Your task to perform on an android device: Go to settings Image 0: 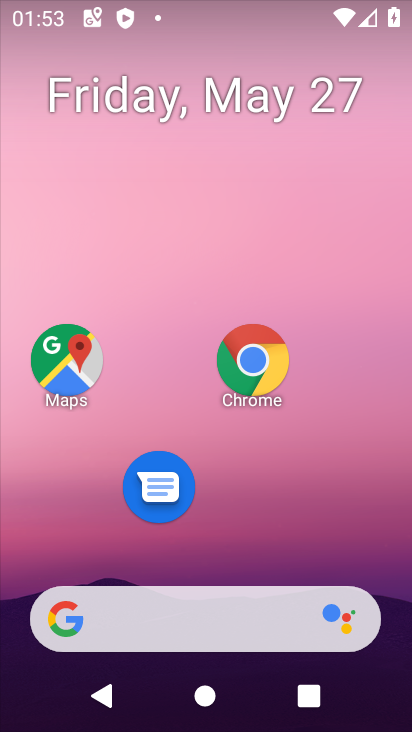
Step 0: drag from (254, 509) to (268, 84)
Your task to perform on an android device: Go to settings Image 1: 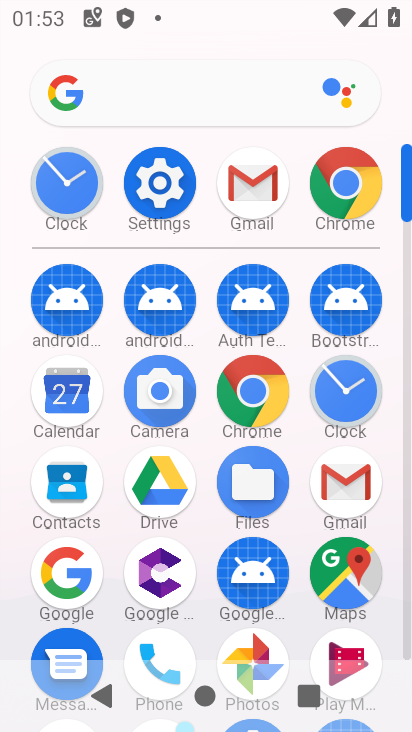
Step 1: click (152, 178)
Your task to perform on an android device: Go to settings Image 2: 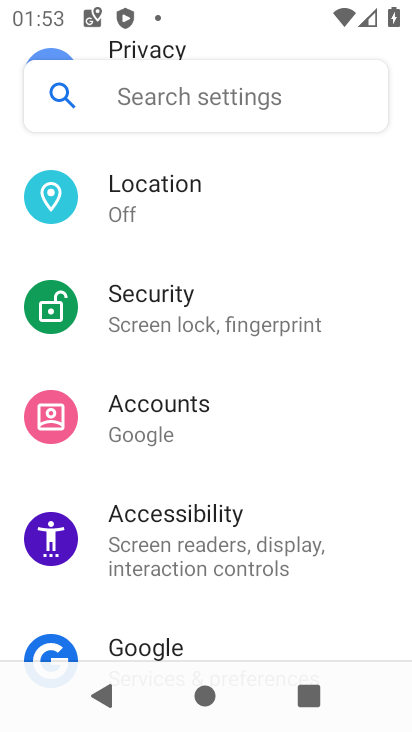
Step 2: task complete